Your task to perform on an android device: What's on my calendar tomorrow? Image 0: 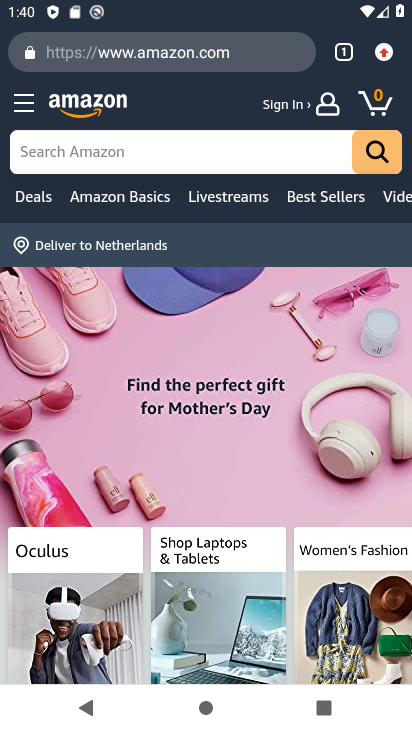
Step 0: press home button
Your task to perform on an android device: What's on my calendar tomorrow? Image 1: 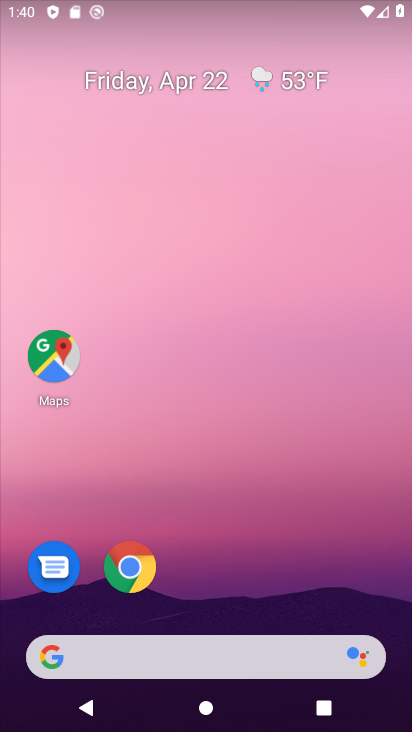
Step 1: drag from (239, 565) to (173, 96)
Your task to perform on an android device: What's on my calendar tomorrow? Image 2: 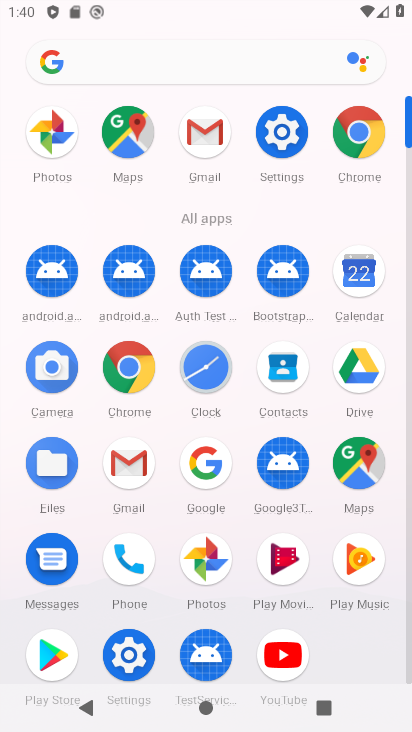
Step 2: click (349, 265)
Your task to perform on an android device: What's on my calendar tomorrow? Image 3: 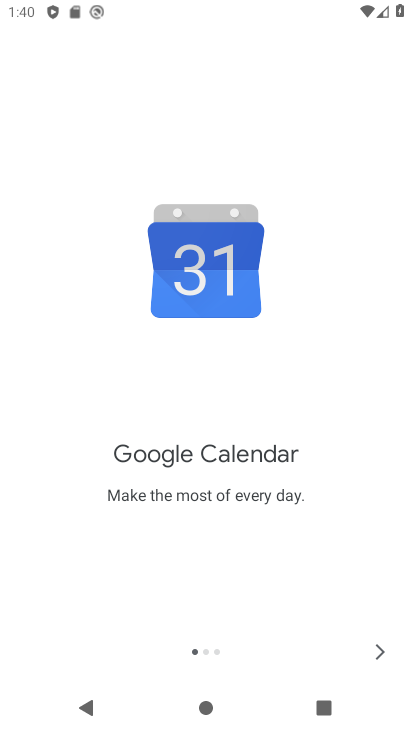
Step 3: click (372, 644)
Your task to perform on an android device: What's on my calendar tomorrow? Image 4: 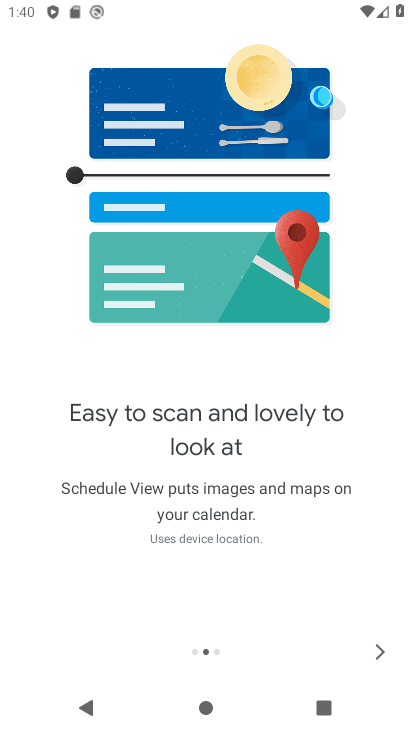
Step 4: click (374, 644)
Your task to perform on an android device: What's on my calendar tomorrow? Image 5: 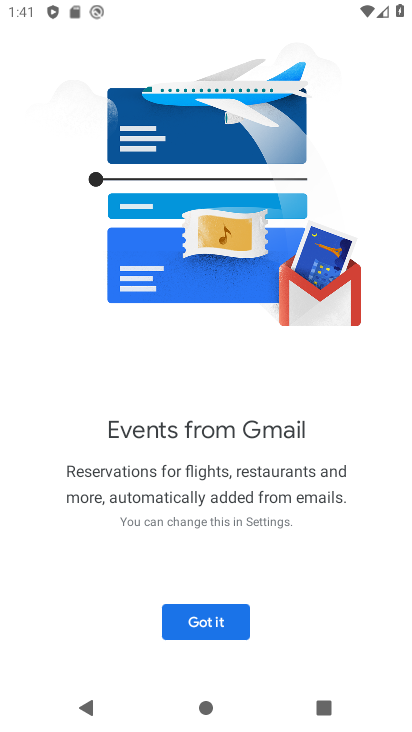
Step 5: click (227, 628)
Your task to perform on an android device: What's on my calendar tomorrow? Image 6: 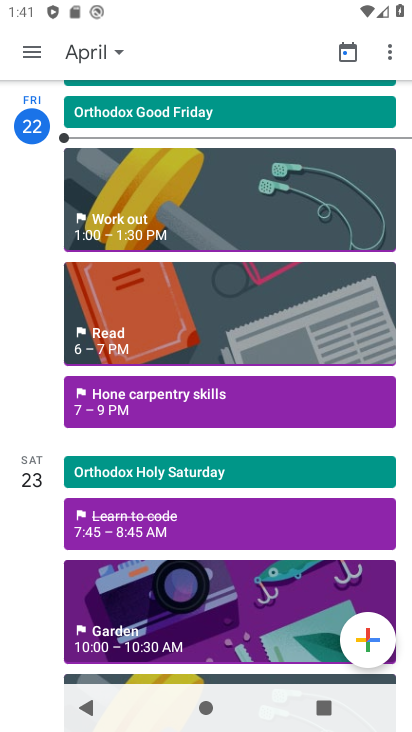
Step 6: task complete